Your task to perform on an android device: Clear the shopping cart on ebay.com. Search for panasonic triple a on ebay.com, select the first entry, add it to the cart, then select checkout. Image 0: 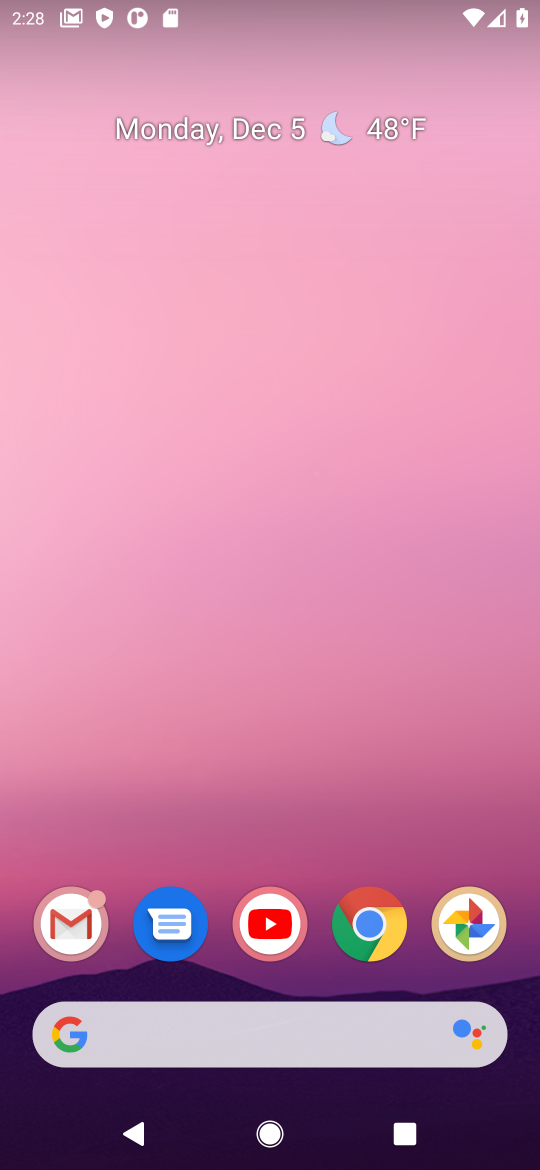
Step 0: click (350, 924)
Your task to perform on an android device: Clear the shopping cart on ebay.com. Search for panasonic triple a on ebay.com, select the first entry, add it to the cart, then select checkout. Image 1: 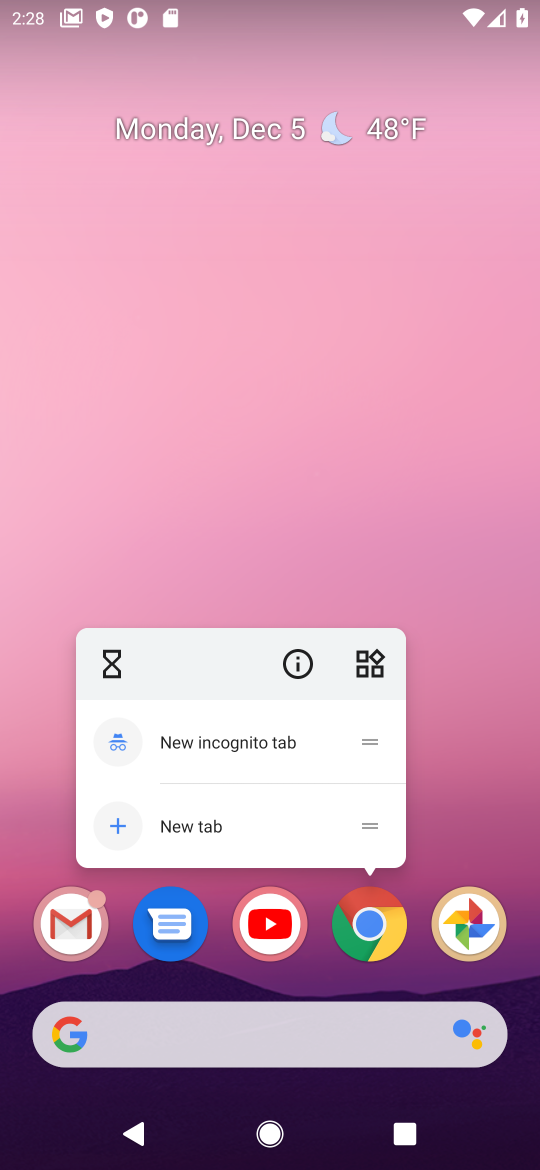
Step 1: click (379, 936)
Your task to perform on an android device: Clear the shopping cart on ebay.com. Search for panasonic triple a on ebay.com, select the first entry, add it to the cart, then select checkout. Image 2: 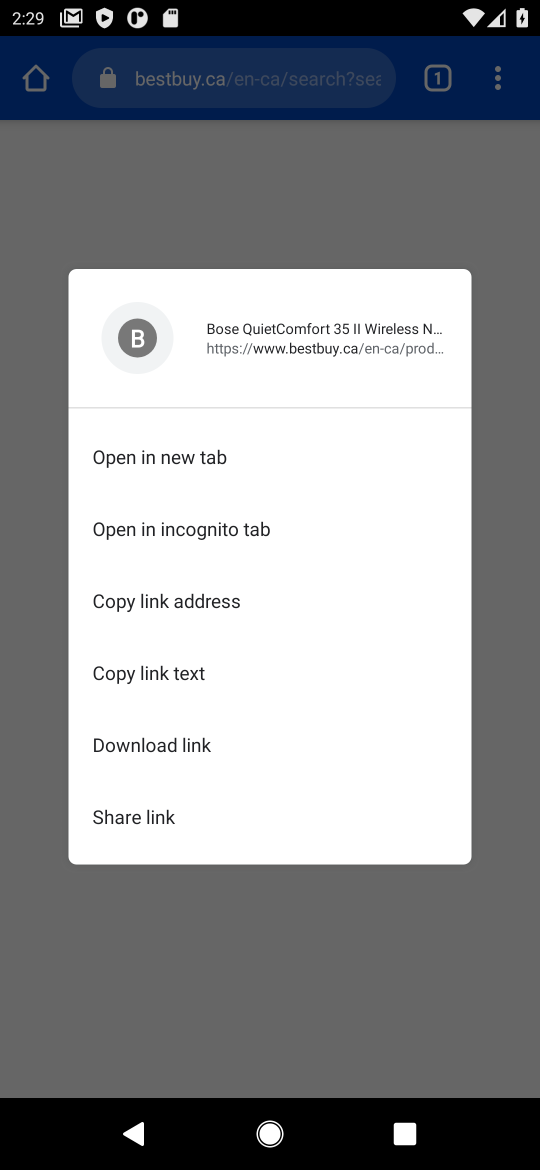
Step 2: task complete